Your task to perform on an android device: Show me popular games on the Play Store Image 0: 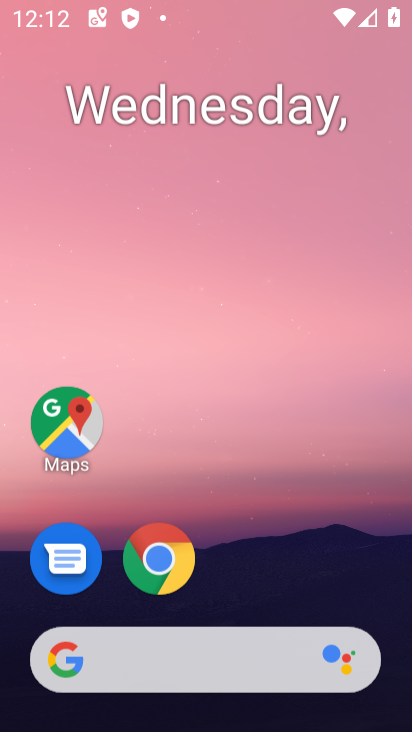
Step 0: drag from (271, 516) to (279, 4)
Your task to perform on an android device: Show me popular games on the Play Store Image 1: 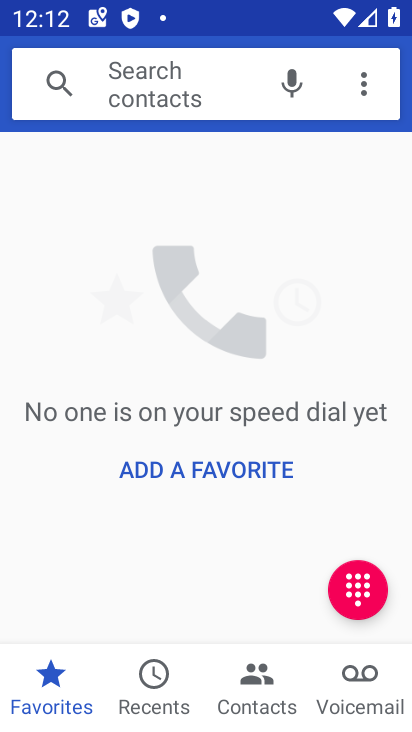
Step 1: press back button
Your task to perform on an android device: Show me popular games on the Play Store Image 2: 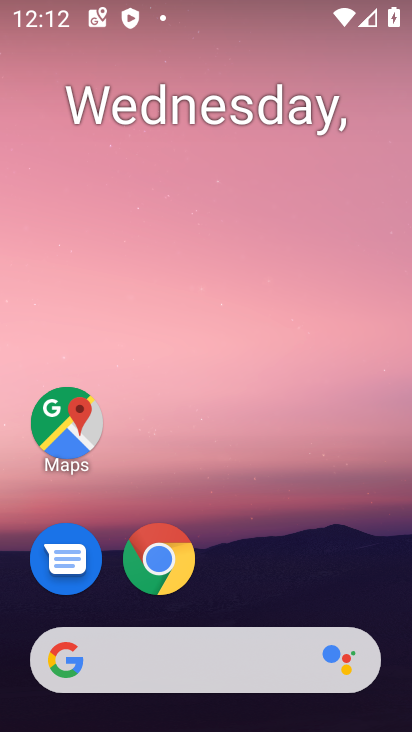
Step 2: drag from (272, 595) to (272, 8)
Your task to perform on an android device: Show me popular games on the Play Store Image 3: 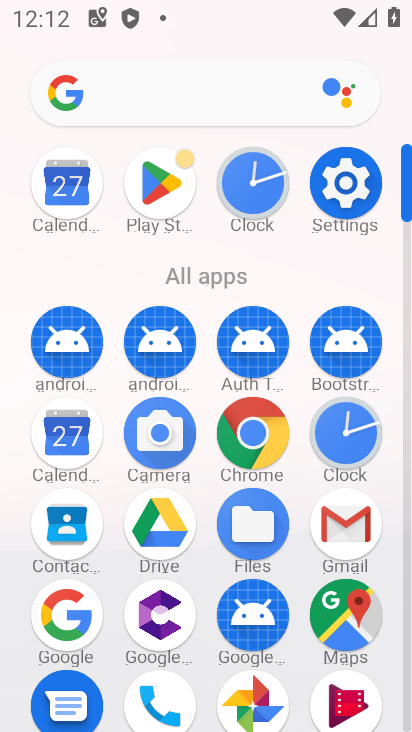
Step 3: click (157, 186)
Your task to perform on an android device: Show me popular games on the Play Store Image 4: 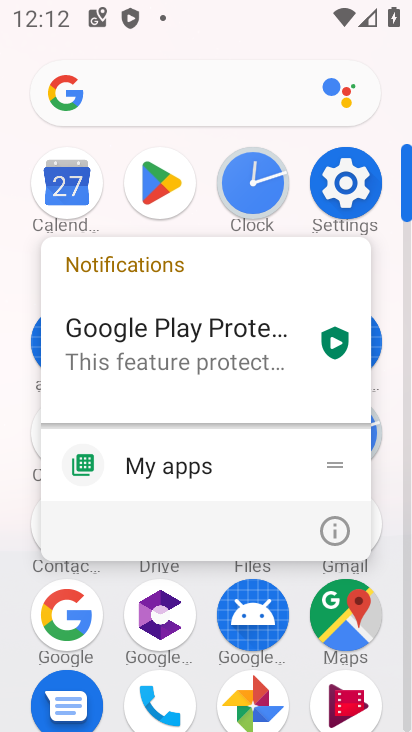
Step 4: click (157, 186)
Your task to perform on an android device: Show me popular games on the Play Store Image 5: 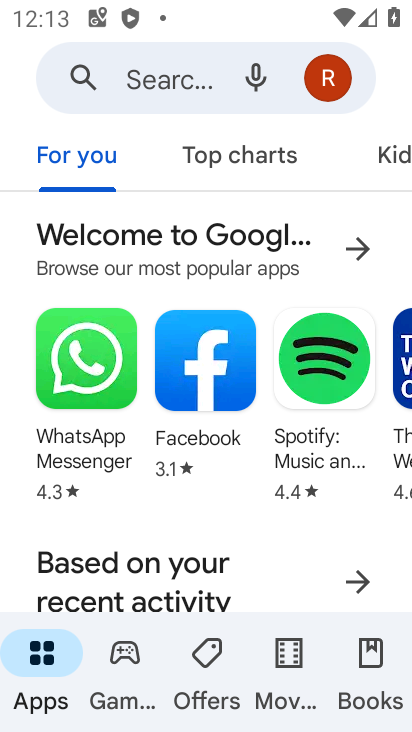
Step 5: click (121, 669)
Your task to perform on an android device: Show me popular games on the Play Store Image 6: 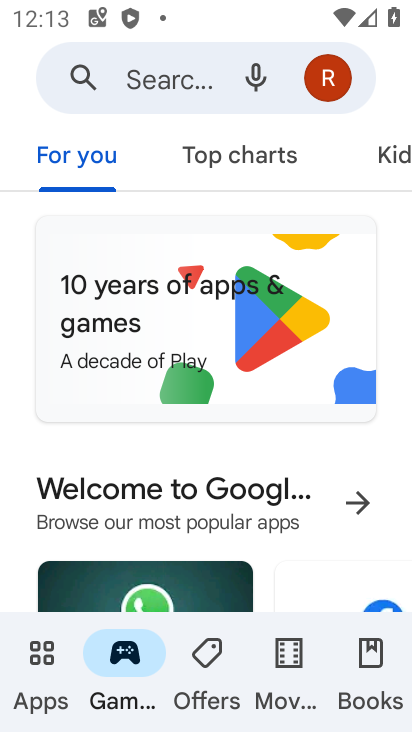
Step 6: drag from (229, 569) to (282, 135)
Your task to perform on an android device: Show me popular games on the Play Store Image 7: 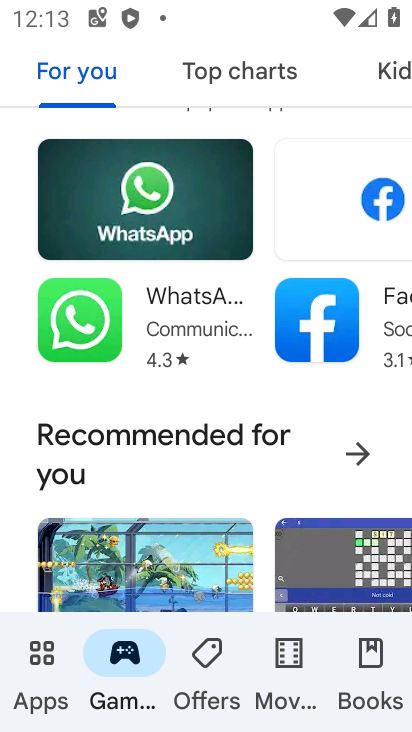
Step 7: drag from (216, 550) to (283, 111)
Your task to perform on an android device: Show me popular games on the Play Store Image 8: 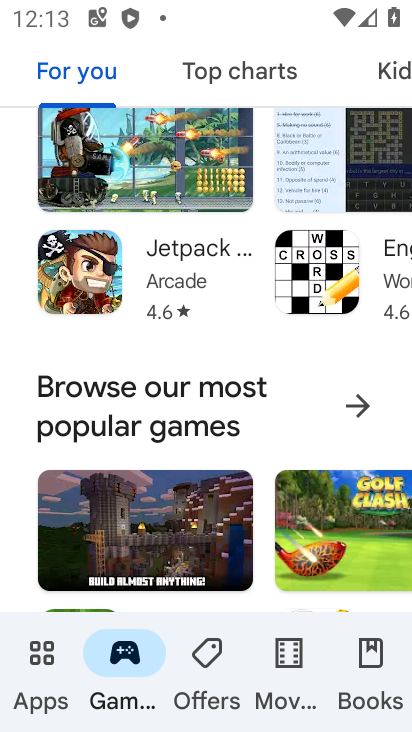
Step 8: click (350, 405)
Your task to perform on an android device: Show me popular games on the Play Store Image 9: 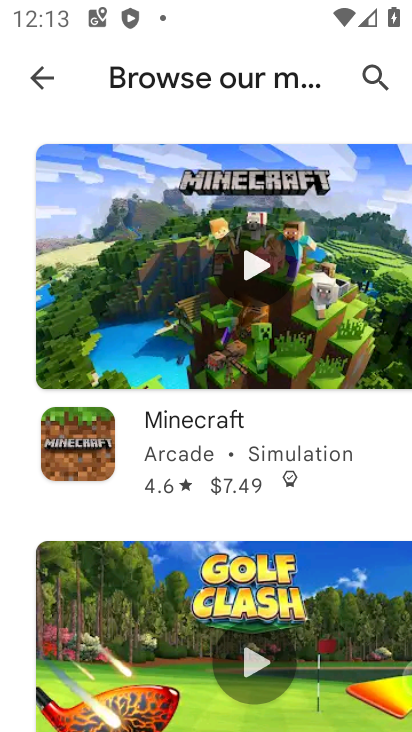
Step 9: task complete